Your task to perform on an android device: Open location settings Image 0: 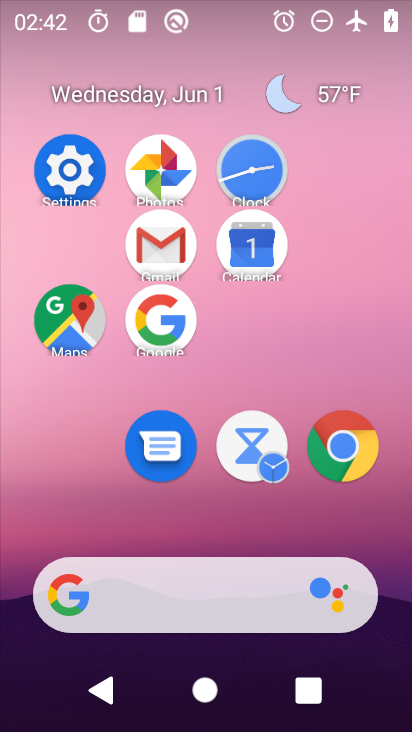
Step 0: click (63, 178)
Your task to perform on an android device: Open location settings Image 1: 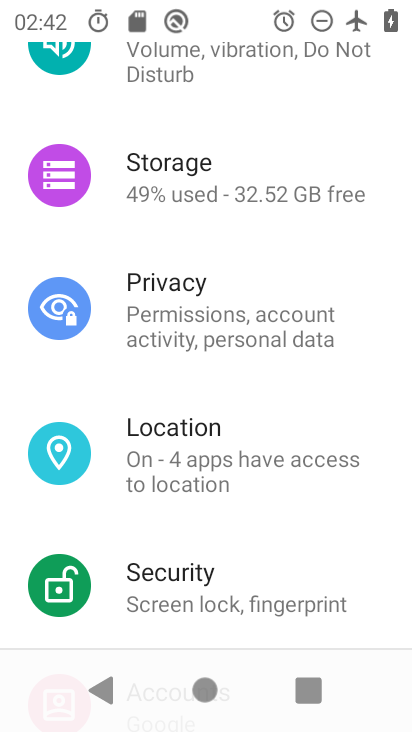
Step 1: click (308, 463)
Your task to perform on an android device: Open location settings Image 2: 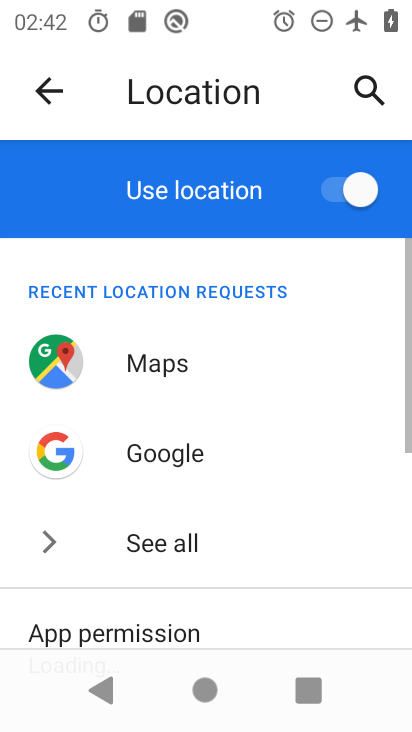
Step 2: task complete